Your task to perform on an android device: open a bookmark in the chrome app Image 0: 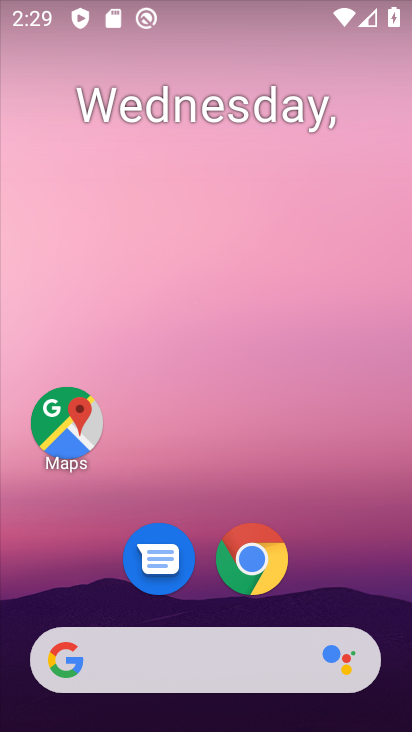
Step 0: click (254, 563)
Your task to perform on an android device: open a bookmark in the chrome app Image 1: 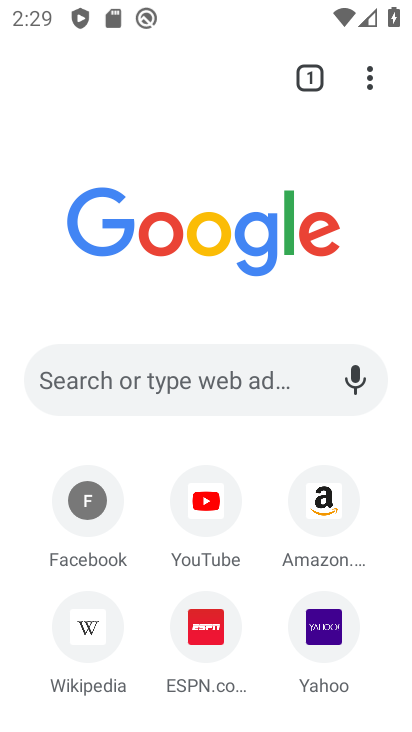
Step 1: click (370, 82)
Your task to perform on an android device: open a bookmark in the chrome app Image 2: 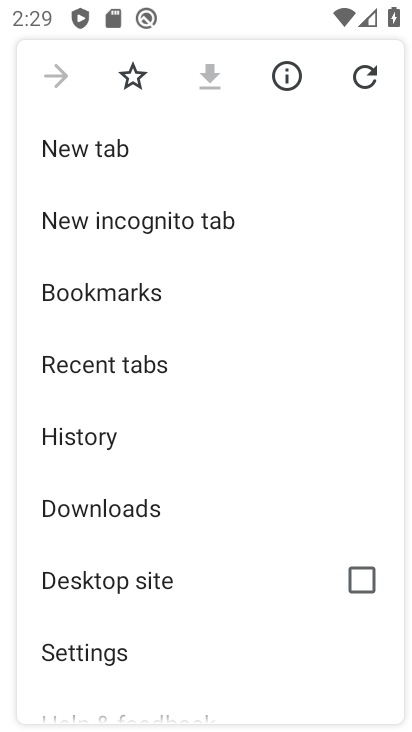
Step 2: click (144, 291)
Your task to perform on an android device: open a bookmark in the chrome app Image 3: 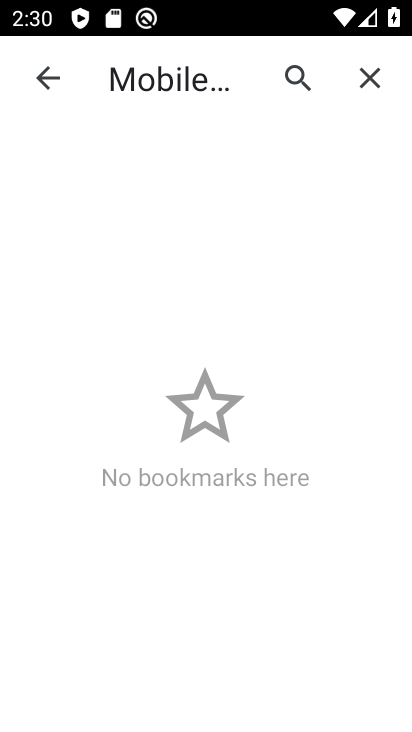
Step 3: task complete